Your task to perform on an android device: Is it going to rain tomorrow? Image 0: 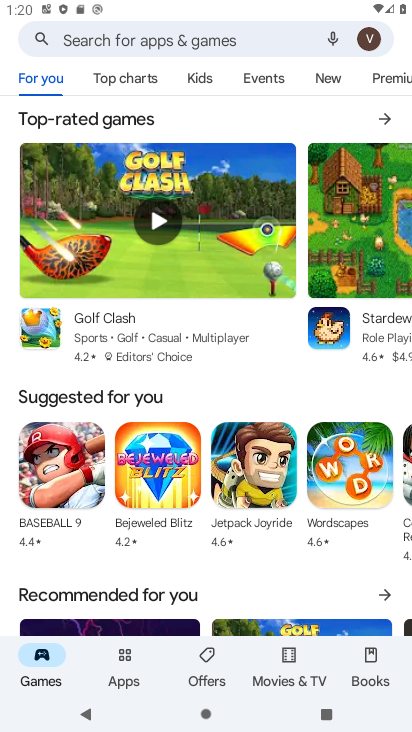
Step 0: press home button
Your task to perform on an android device: Is it going to rain tomorrow? Image 1: 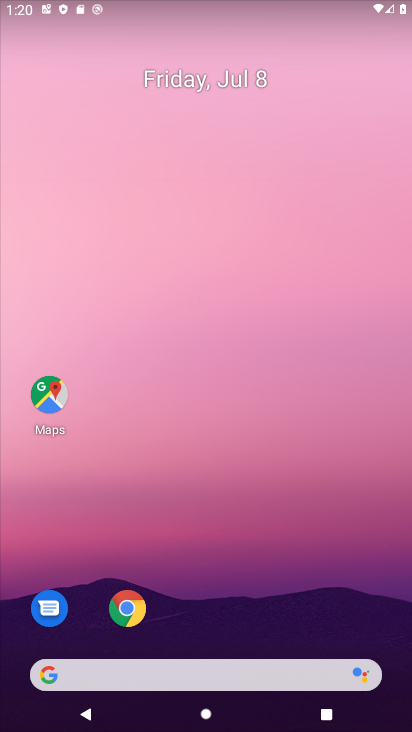
Step 1: drag from (6, 236) to (384, 260)
Your task to perform on an android device: Is it going to rain tomorrow? Image 2: 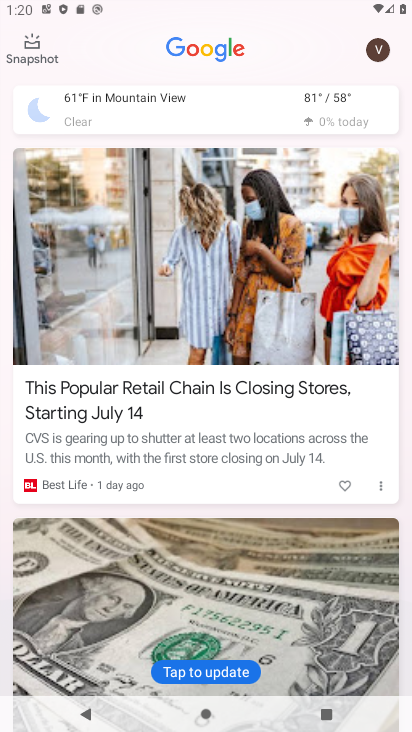
Step 2: click (311, 95)
Your task to perform on an android device: Is it going to rain tomorrow? Image 3: 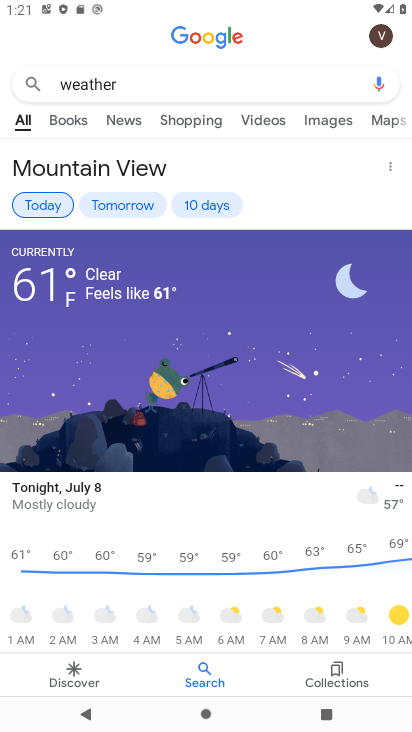
Step 3: click (118, 201)
Your task to perform on an android device: Is it going to rain tomorrow? Image 4: 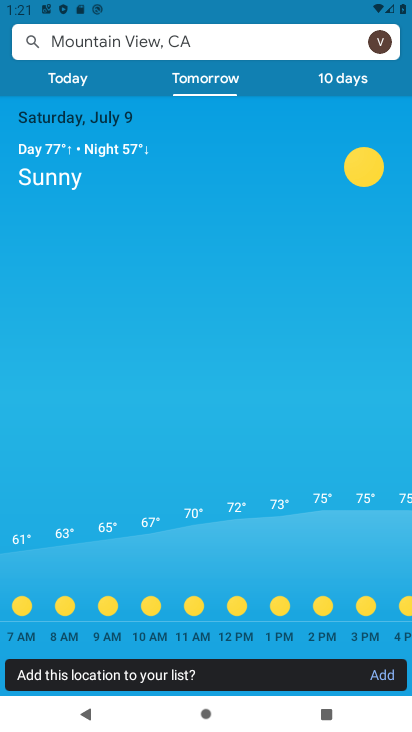
Step 4: drag from (272, 565) to (265, 307)
Your task to perform on an android device: Is it going to rain tomorrow? Image 5: 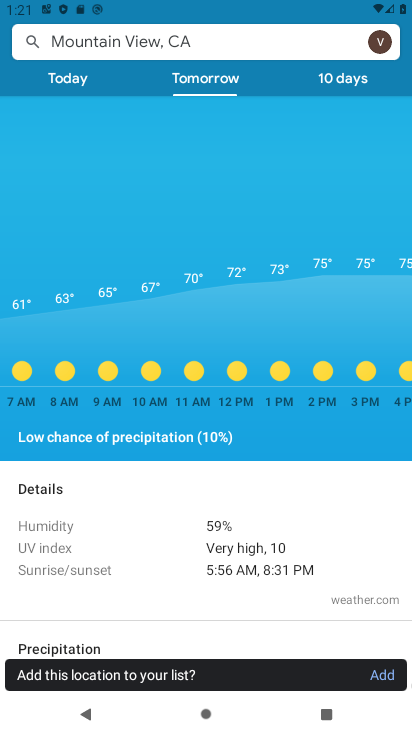
Step 5: drag from (368, 376) to (243, 375)
Your task to perform on an android device: Is it going to rain tomorrow? Image 6: 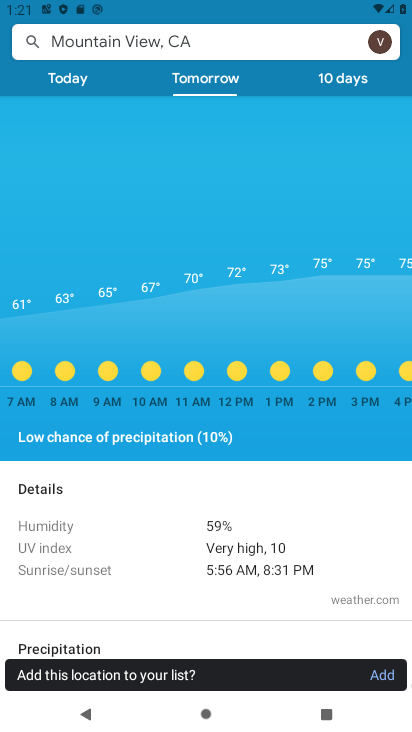
Step 6: drag from (363, 378) to (125, 372)
Your task to perform on an android device: Is it going to rain tomorrow? Image 7: 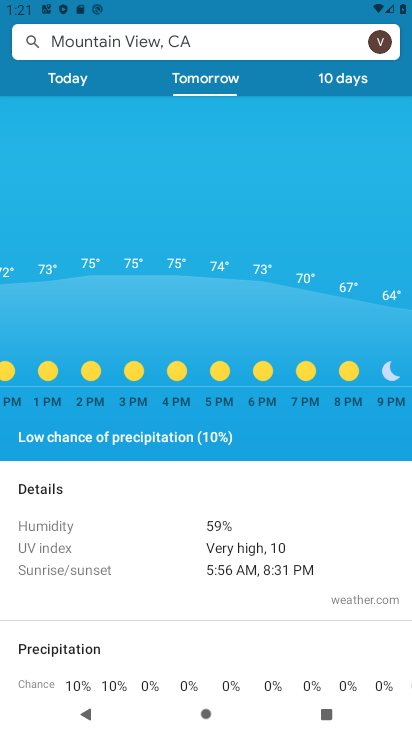
Step 7: click (343, 379)
Your task to perform on an android device: Is it going to rain tomorrow? Image 8: 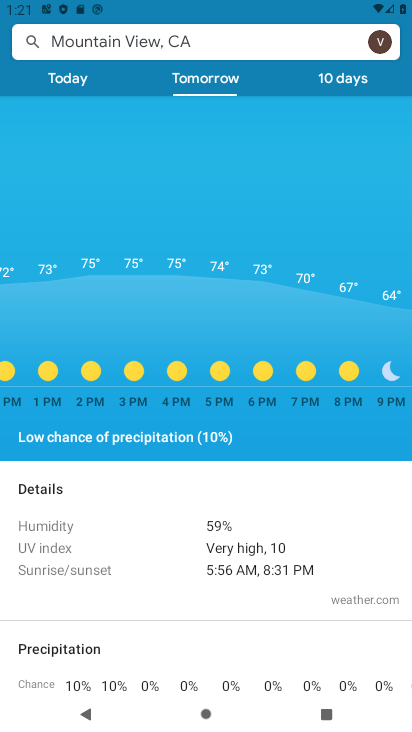
Step 8: task complete